Your task to perform on an android device: Is it going to rain tomorrow? Image 0: 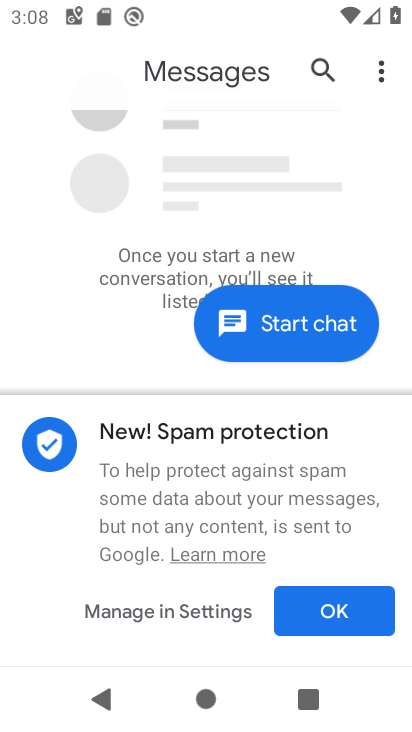
Step 0: press home button
Your task to perform on an android device: Is it going to rain tomorrow? Image 1: 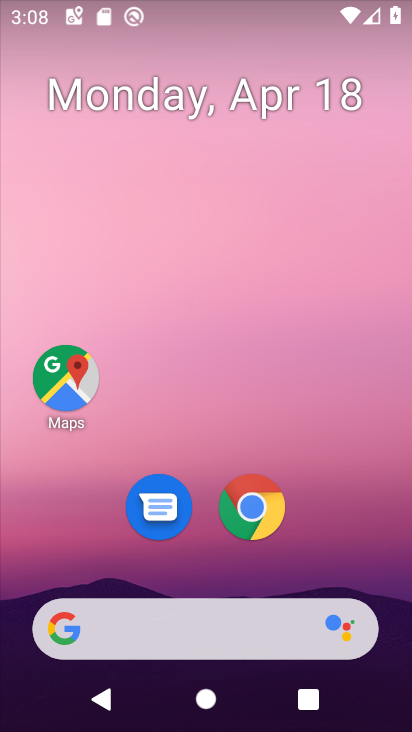
Step 1: click (173, 613)
Your task to perform on an android device: Is it going to rain tomorrow? Image 2: 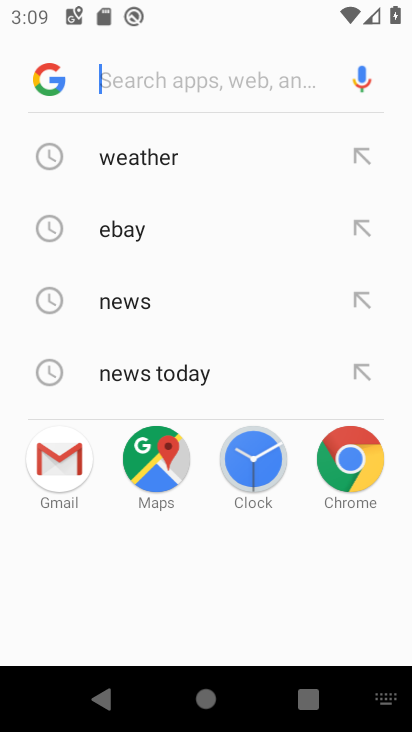
Step 2: type "Is it going to rain tomorrow?"
Your task to perform on an android device: Is it going to rain tomorrow? Image 3: 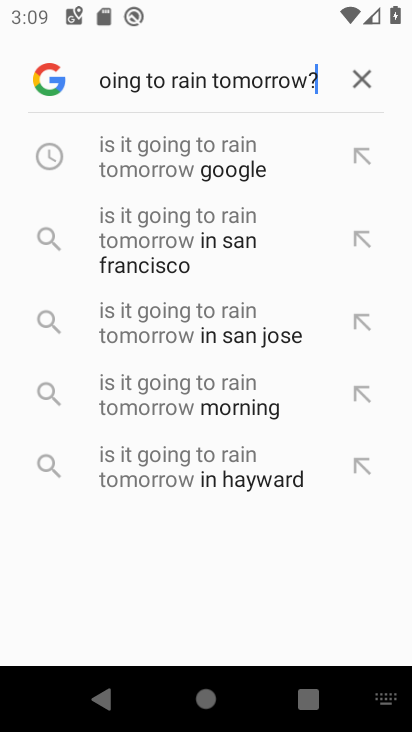
Step 3: click (214, 177)
Your task to perform on an android device: Is it going to rain tomorrow? Image 4: 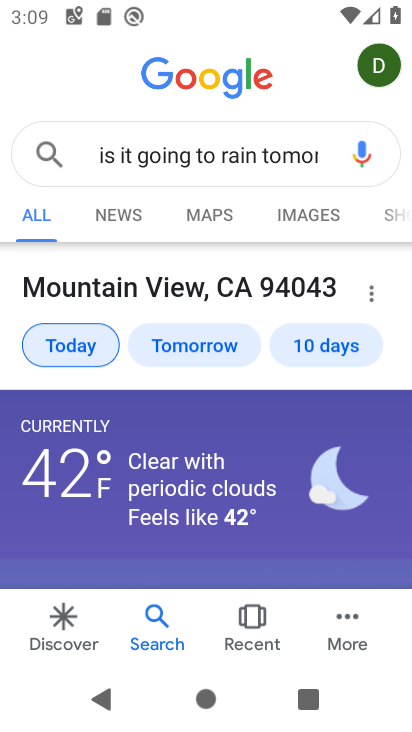
Step 4: task complete